Your task to perform on an android device: show emergency info Image 0: 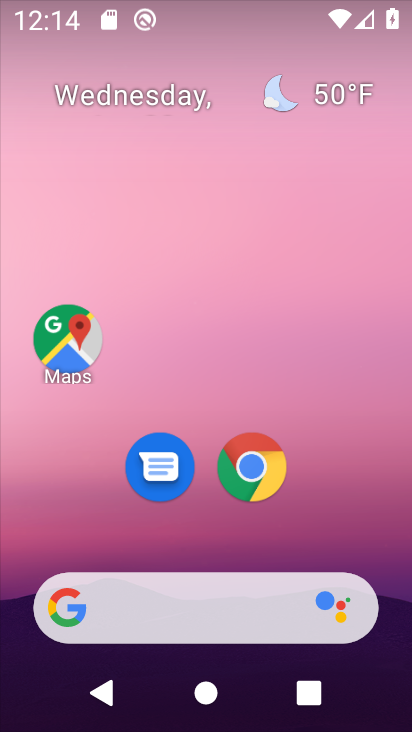
Step 0: drag from (192, 354) to (238, 109)
Your task to perform on an android device: show emergency info Image 1: 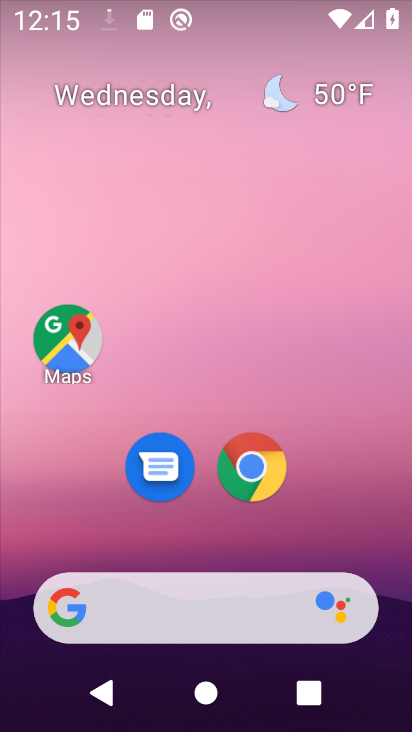
Step 1: drag from (194, 345) to (279, 0)
Your task to perform on an android device: show emergency info Image 2: 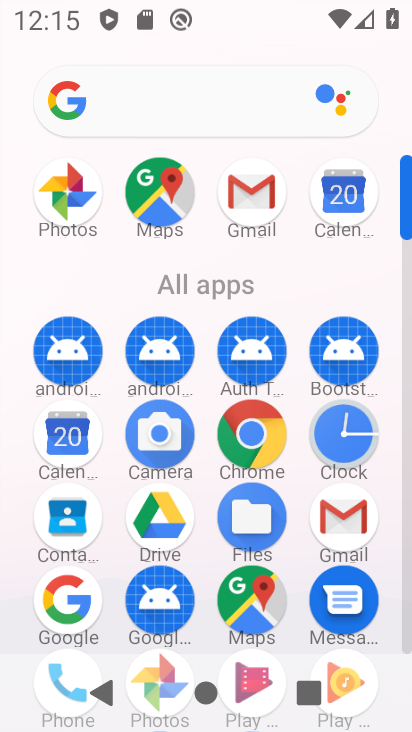
Step 2: drag from (208, 461) to (230, 173)
Your task to perform on an android device: show emergency info Image 3: 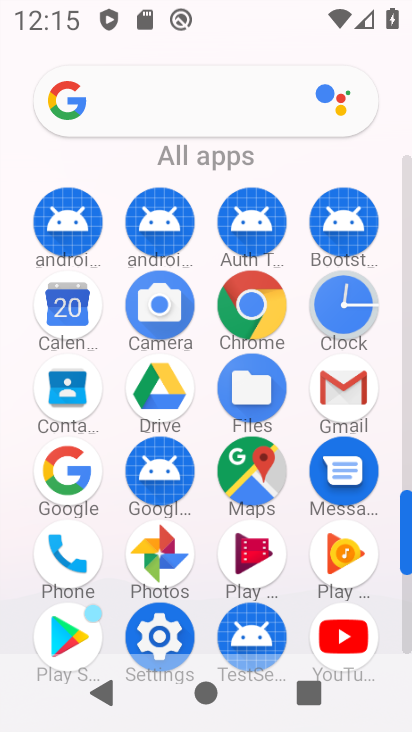
Step 3: click (167, 633)
Your task to perform on an android device: show emergency info Image 4: 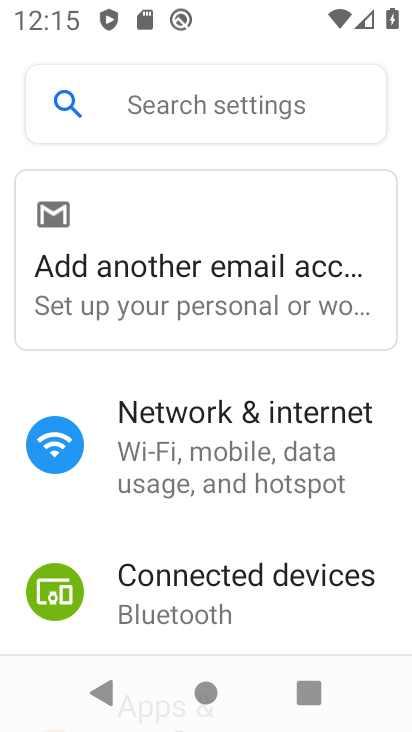
Step 4: drag from (225, 364) to (269, 7)
Your task to perform on an android device: show emergency info Image 5: 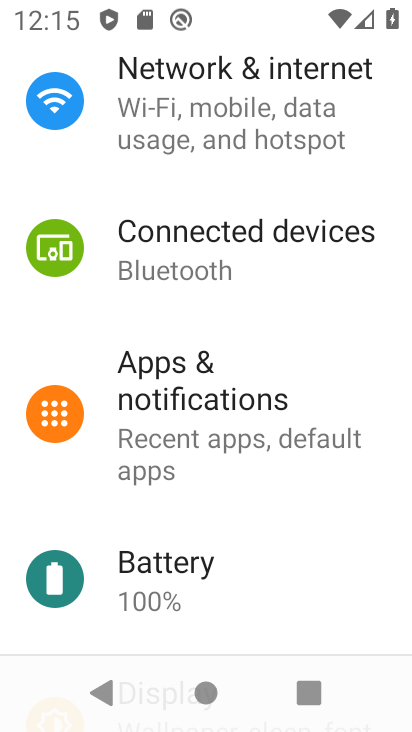
Step 5: drag from (186, 596) to (235, 150)
Your task to perform on an android device: show emergency info Image 6: 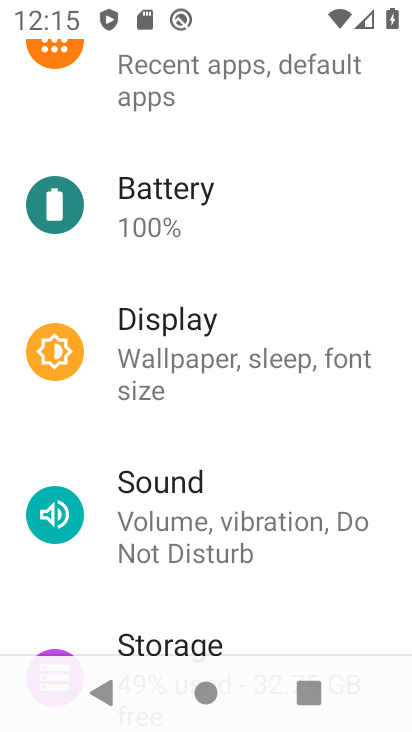
Step 6: drag from (231, 444) to (268, 92)
Your task to perform on an android device: show emergency info Image 7: 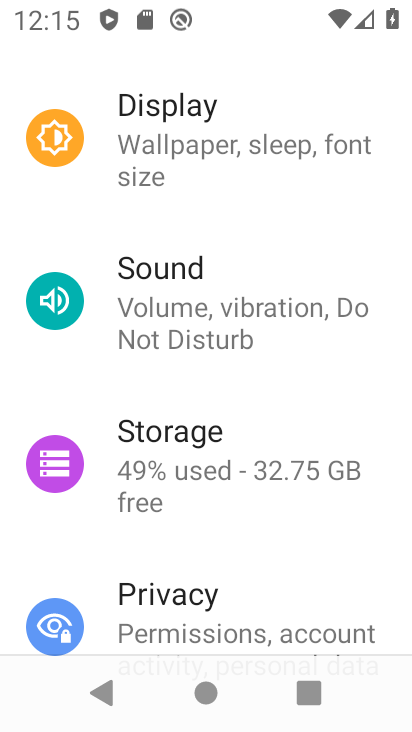
Step 7: drag from (217, 497) to (266, 109)
Your task to perform on an android device: show emergency info Image 8: 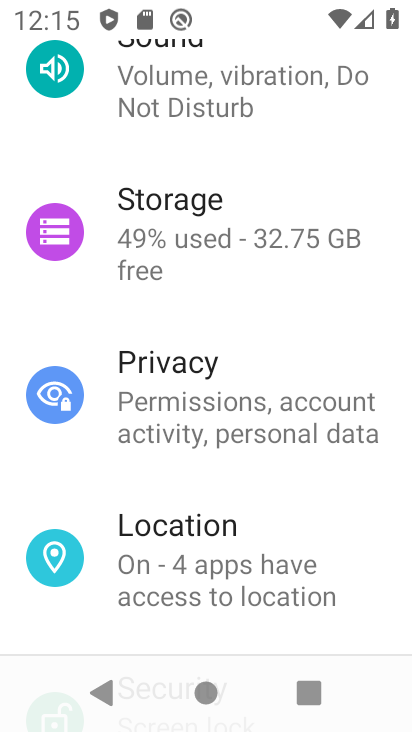
Step 8: drag from (212, 593) to (275, 135)
Your task to perform on an android device: show emergency info Image 9: 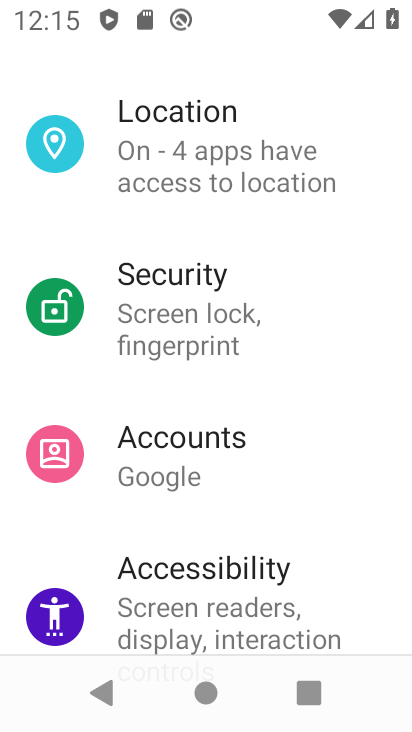
Step 9: drag from (238, 472) to (274, 16)
Your task to perform on an android device: show emergency info Image 10: 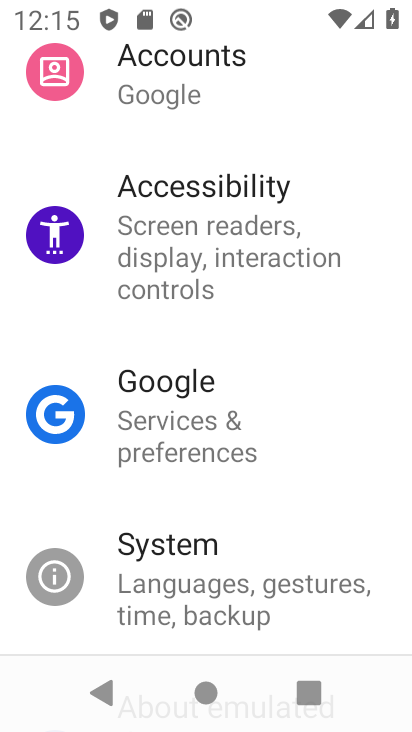
Step 10: drag from (236, 556) to (281, 170)
Your task to perform on an android device: show emergency info Image 11: 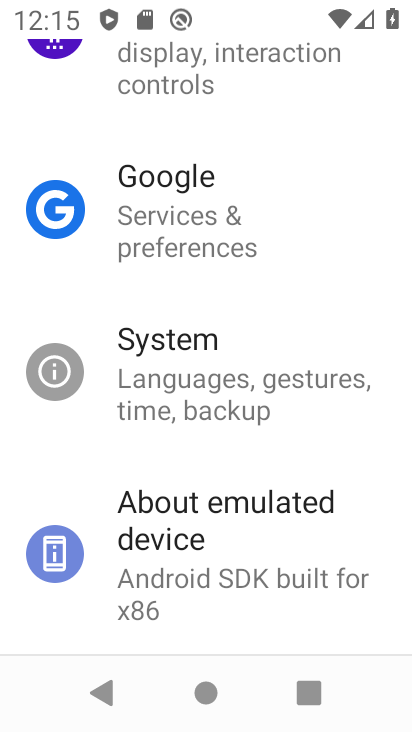
Step 11: click (215, 571)
Your task to perform on an android device: show emergency info Image 12: 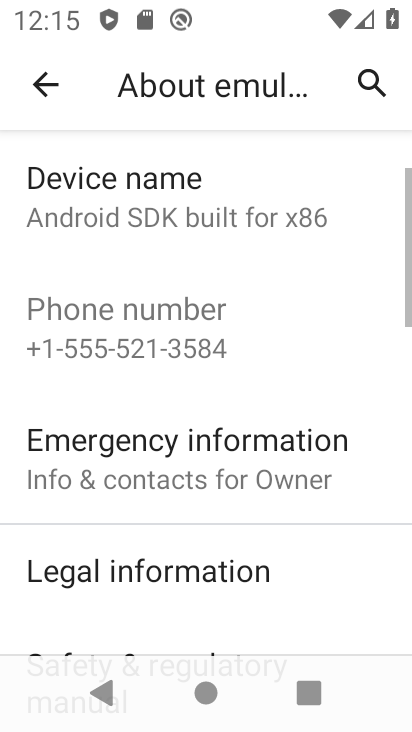
Step 12: click (260, 489)
Your task to perform on an android device: show emergency info Image 13: 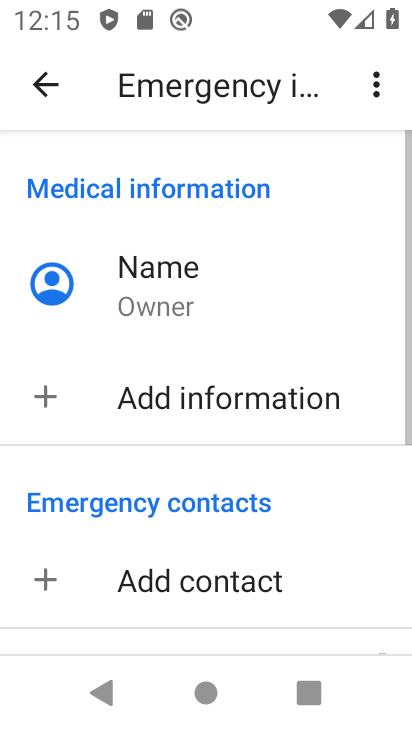
Step 13: task complete